Your task to perform on an android device: set default search engine in the chrome app Image 0: 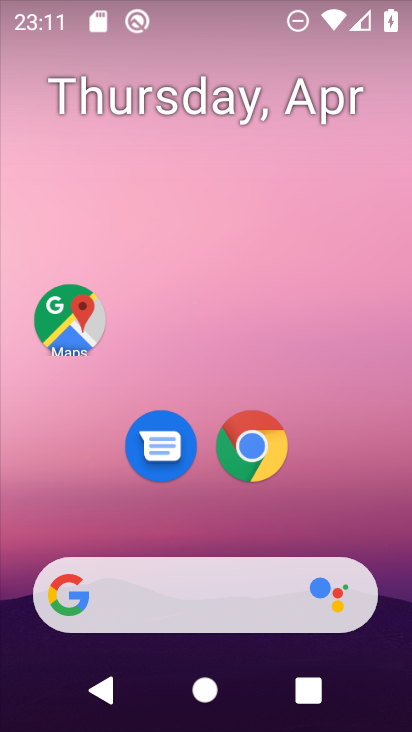
Step 0: click (209, 451)
Your task to perform on an android device: set default search engine in the chrome app Image 1: 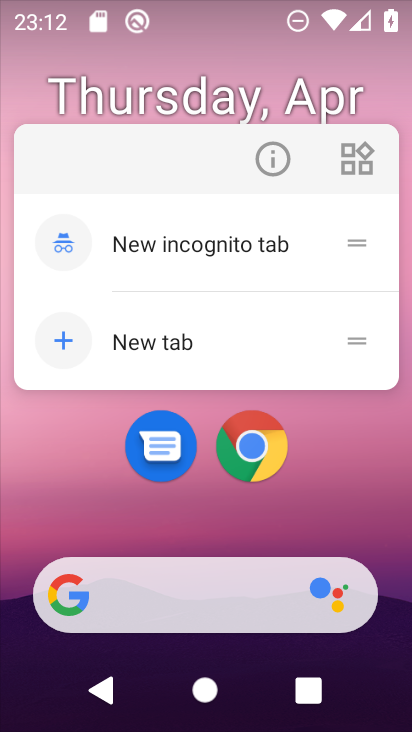
Step 1: click (300, 155)
Your task to perform on an android device: set default search engine in the chrome app Image 2: 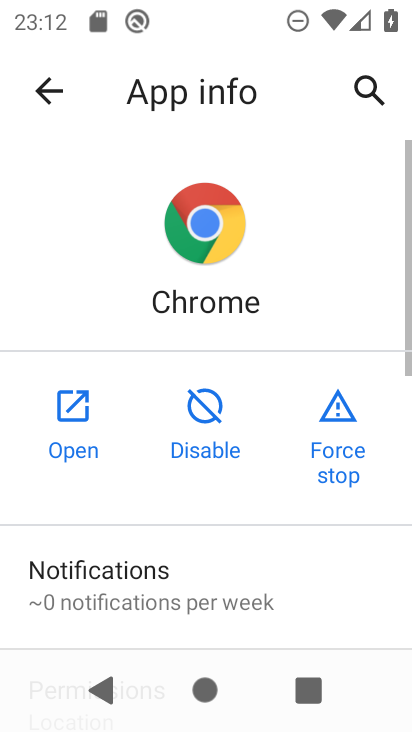
Step 2: click (55, 406)
Your task to perform on an android device: set default search engine in the chrome app Image 3: 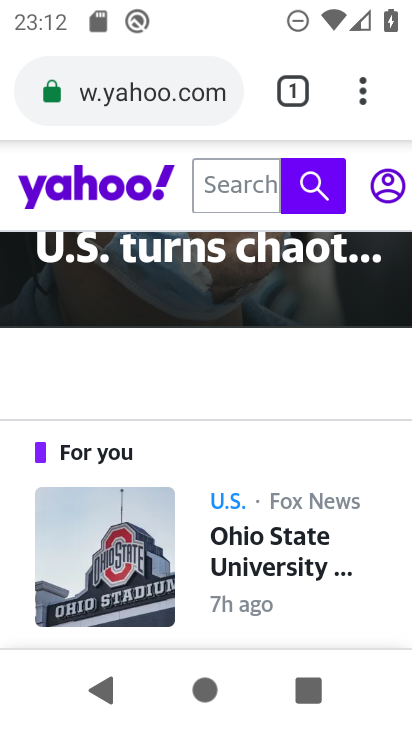
Step 3: click (373, 95)
Your task to perform on an android device: set default search engine in the chrome app Image 4: 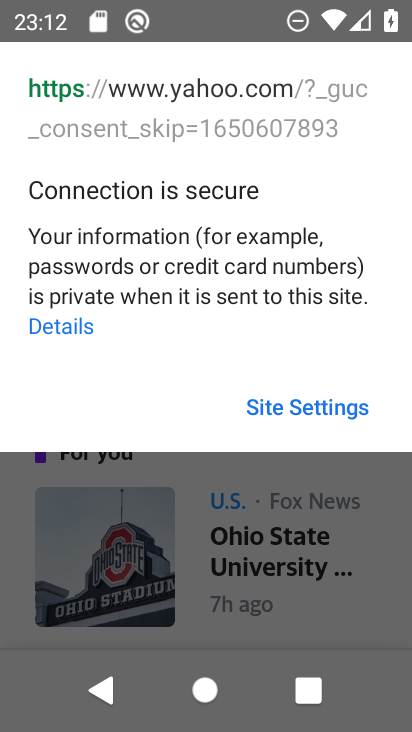
Step 4: click (277, 408)
Your task to perform on an android device: set default search engine in the chrome app Image 5: 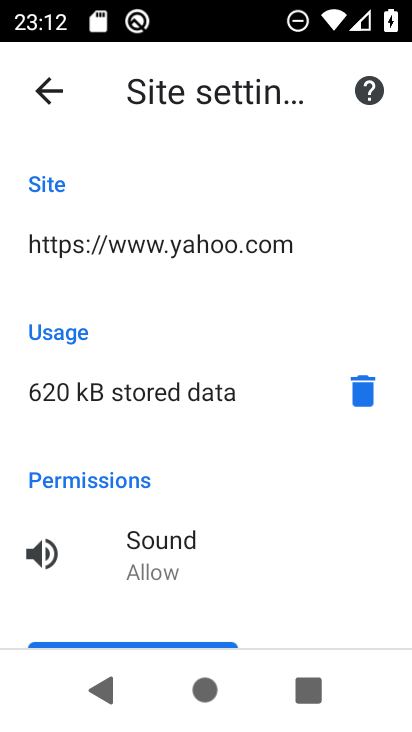
Step 5: click (48, 94)
Your task to perform on an android device: set default search engine in the chrome app Image 6: 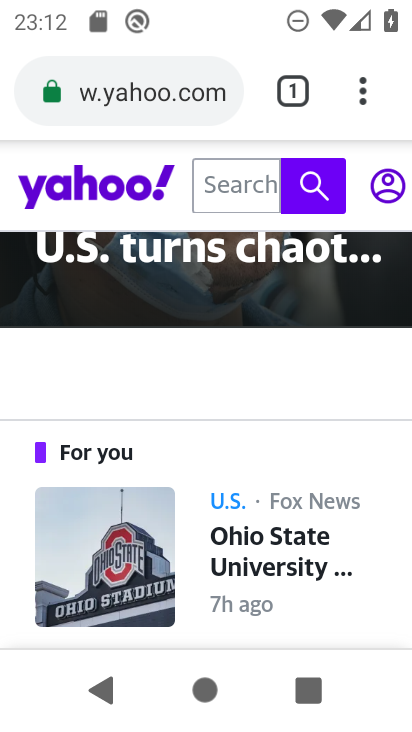
Step 6: click (375, 83)
Your task to perform on an android device: set default search engine in the chrome app Image 7: 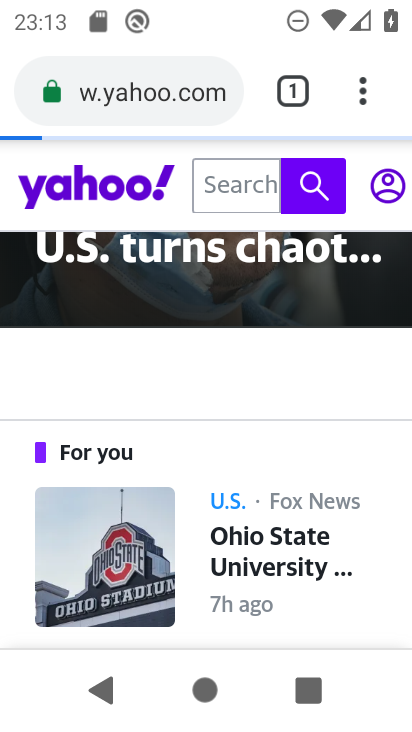
Step 7: drag from (370, 80) to (149, 475)
Your task to perform on an android device: set default search engine in the chrome app Image 8: 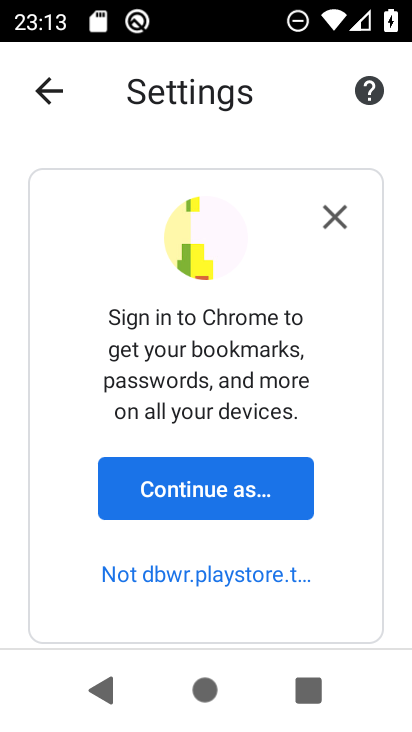
Step 8: click (321, 220)
Your task to perform on an android device: set default search engine in the chrome app Image 9: 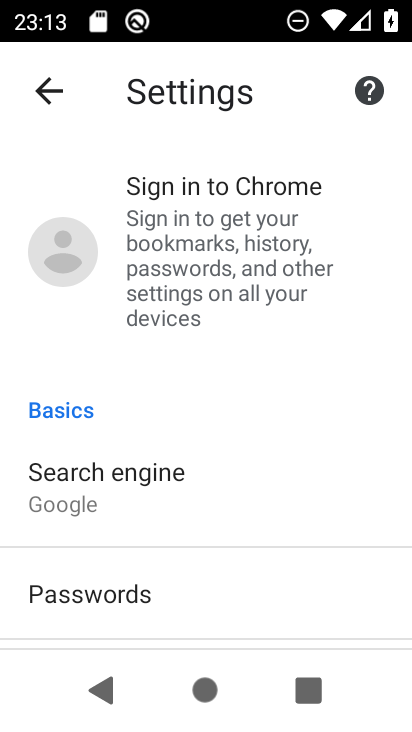
Step 9: click (83, 513)
Your task to perform on an android device: set default search engine in the chrome app Image 10: 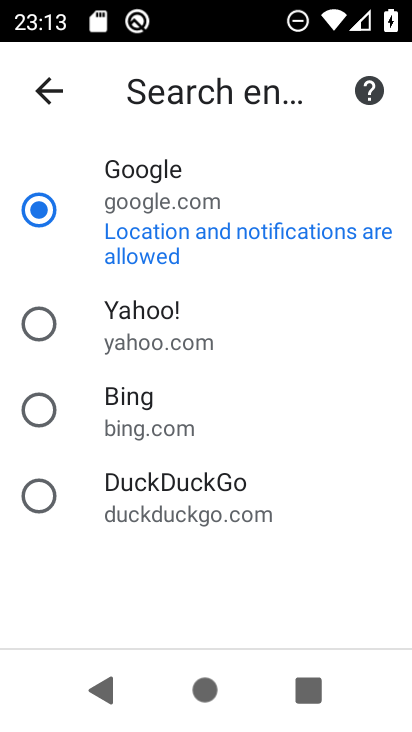
Step 10: click (82, 308)
Your task to perform on an android device: set default search engine in the chrome app Image 11: 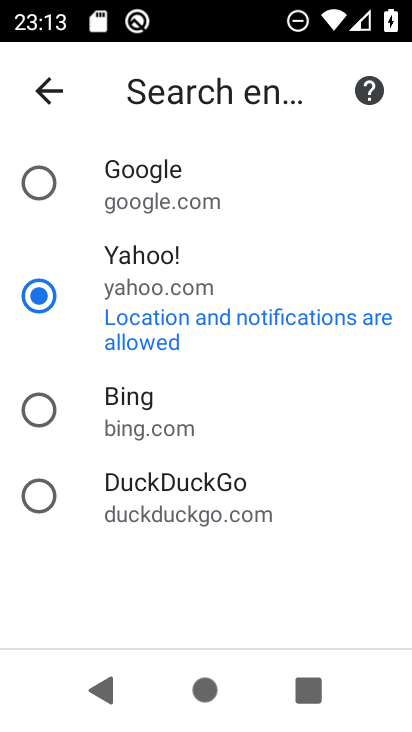
Step 11: task complete